Your task to perform on an android device: change the clock style Image 0: 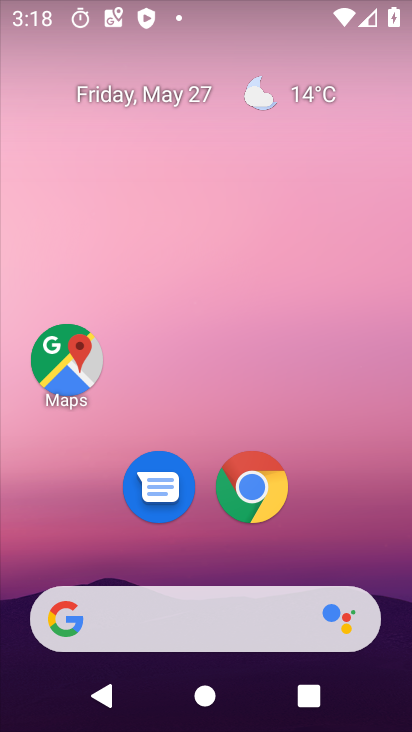
Step 0: drag from (348, 532) to (0, 95)
Your task to perform on an android device: change the clock style Image 1: 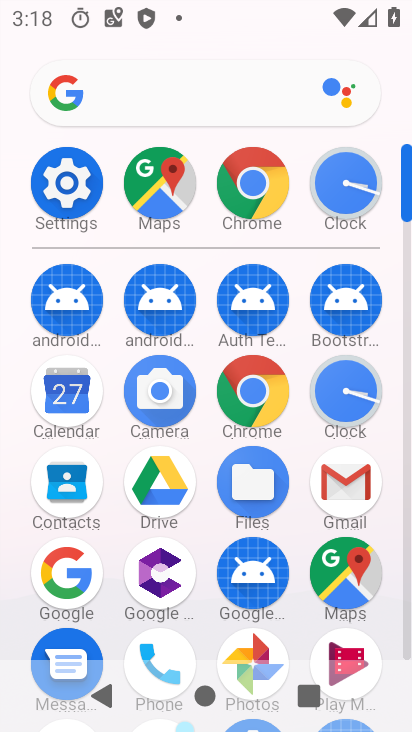
Step 1: click (345, 394)
Your task to perform on an android device: change the clock style Image 2: 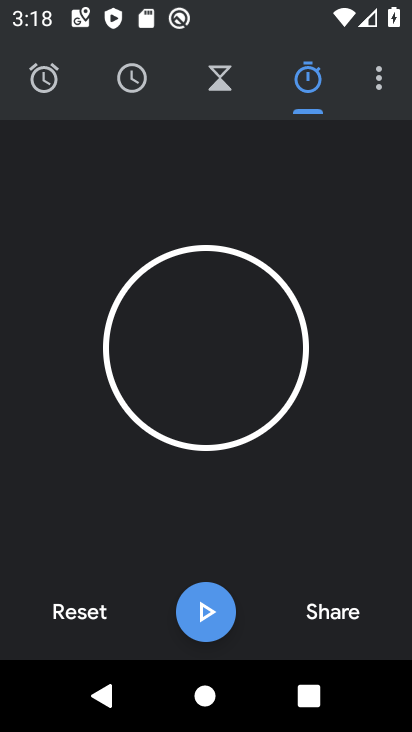
Step 2: click (379, 83)
Your task to perform on an android device: change the clock style Image 3: 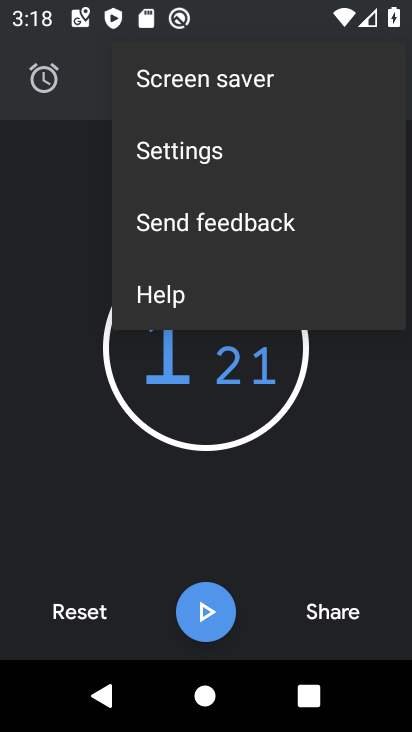
Step 3: click (166, 143)
Your task to perform on an android device: change the clock style Image 4: 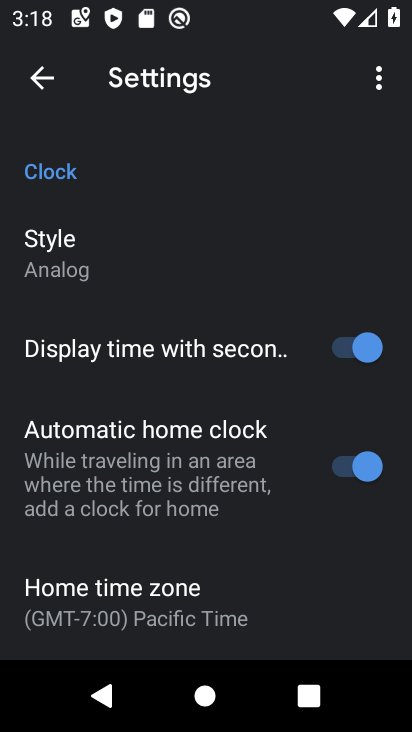
Step 4: click (57, 274)
Your task to perform on an android device: change the clock style Image 5: 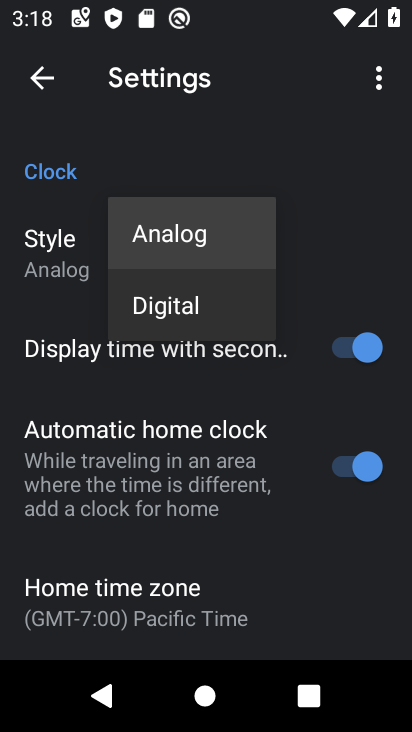
Step 5: click (154, 308)
Your task to perform on an android device: change the clock style Image 6: 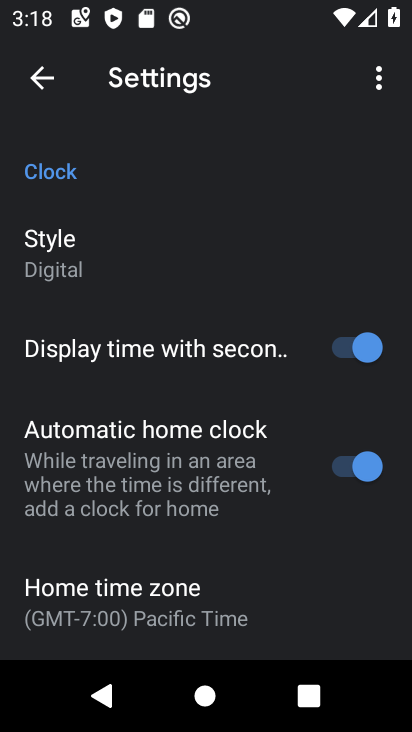
Step 6: task complete